Your task to perform on an android device: Is it going to rain tomorrow? Image 0: 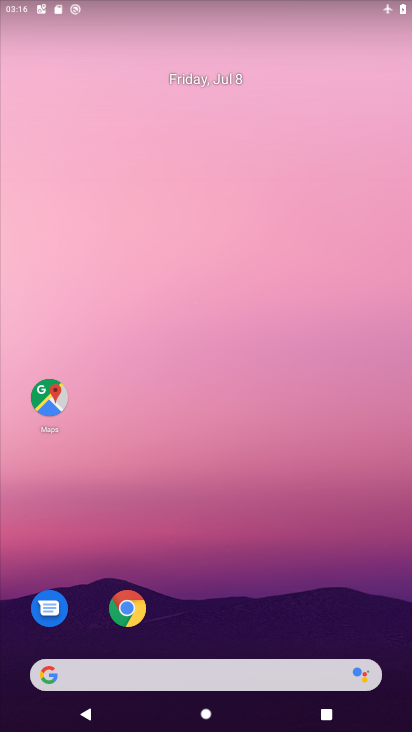
Step 0: click (123, 589)
Your task to perform on an android device: Is it going to rain tomorrow? Image 1: 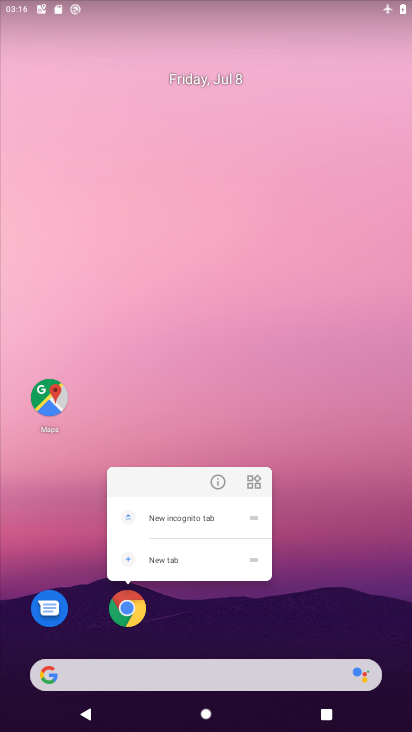
Step 1: click (128, 601)
Your task to perform on an android device: Is it going to rain tomorrow? Image 2: 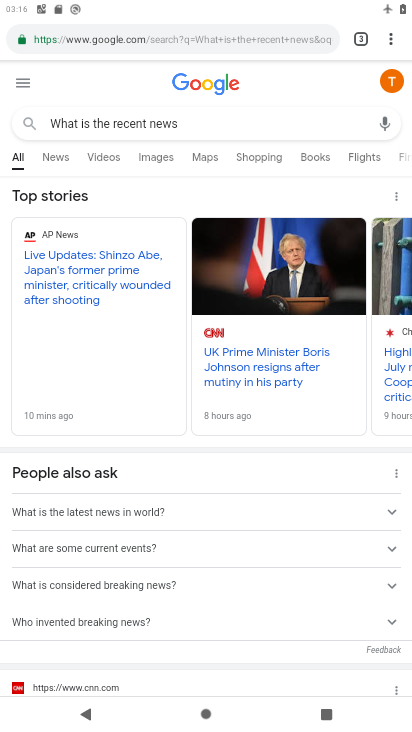
Step 2: click (392, 32)
Your task to perform on an android device: Is it going to rain tomorrow? Image 3: 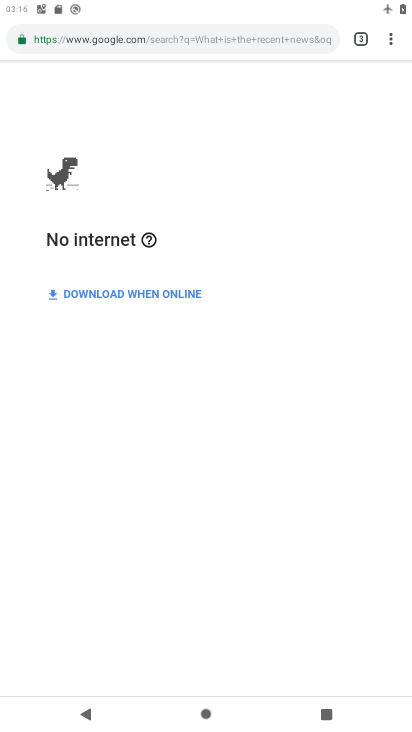
Step 3: click (397, 34)
Your task to perform on an android device: Is it going to rain tomorrow? Image 4: 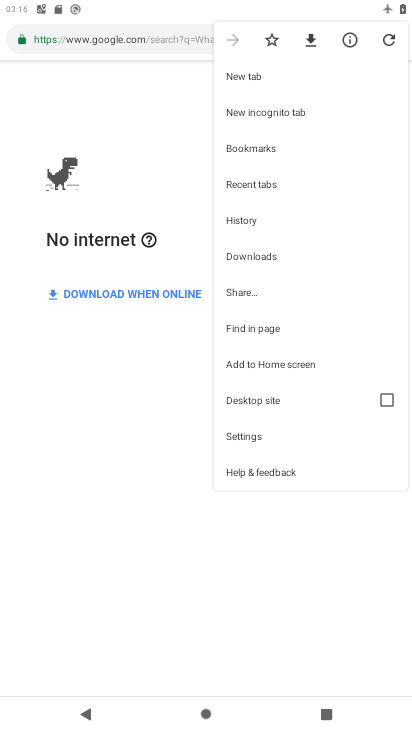
Step 4: click (226, 83)
Your task to perform on an android device: Is it going to rain tomorrow? Image 5: 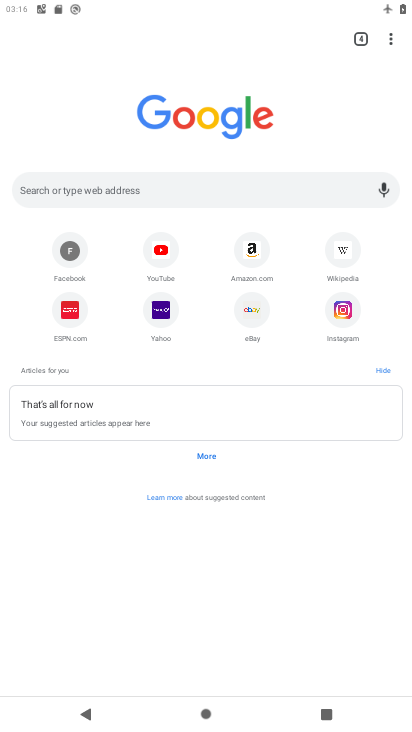
Step 5: click (197, 187)
Your task to perform on an android device: Is it going to rain tomorrow? Image 6: 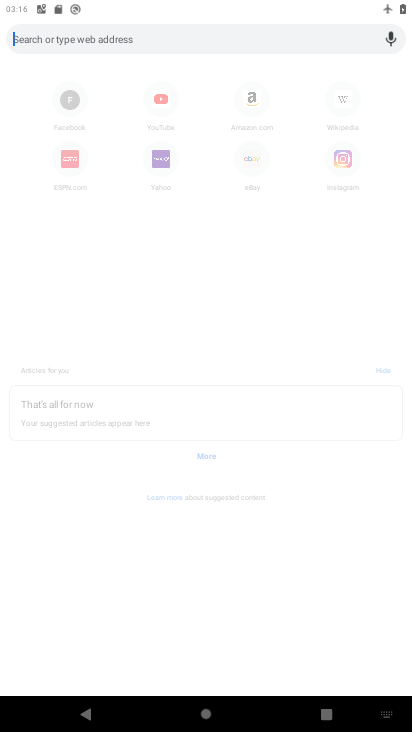
Step 6: type "Is it going to rain tomorrow "
Your task to perform on an android device: Is it going to rain tomorrow? Image 7: 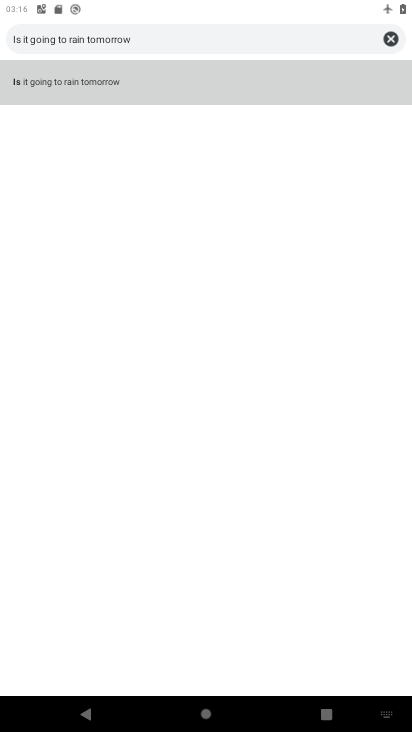
Step 7: click (172, 92)
Your task to perform on an android device: Is it going to rain tomorrow? Image 8: 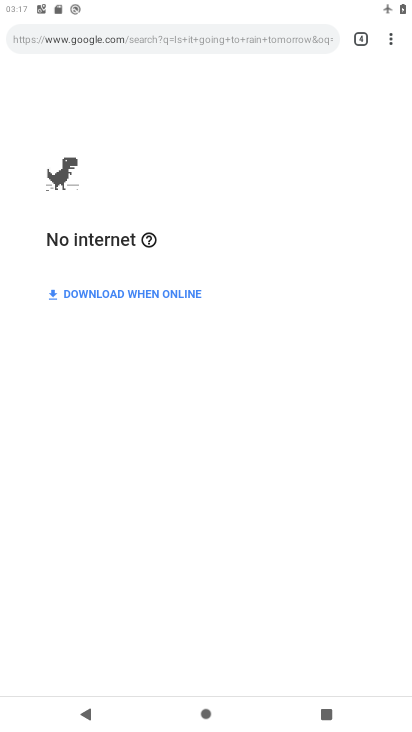
Step 8: click (396, 34)
Your task to perform on an android device: Is it going to rain tomorrow? Image 9: 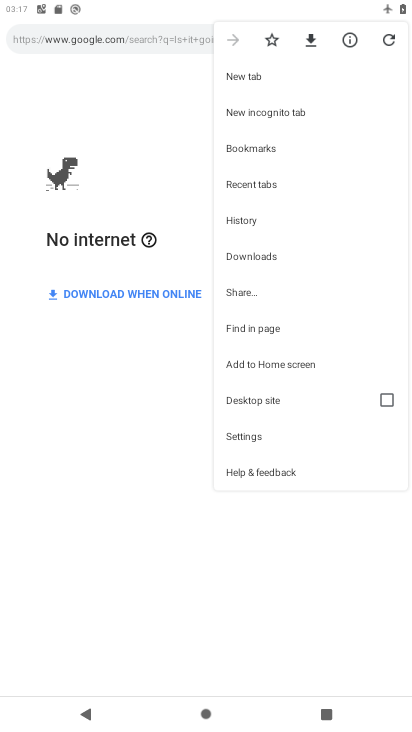
Step 9: click (240, 83)
Your task to perform on an android device: Is it going to rain tomorrow? Image 10: 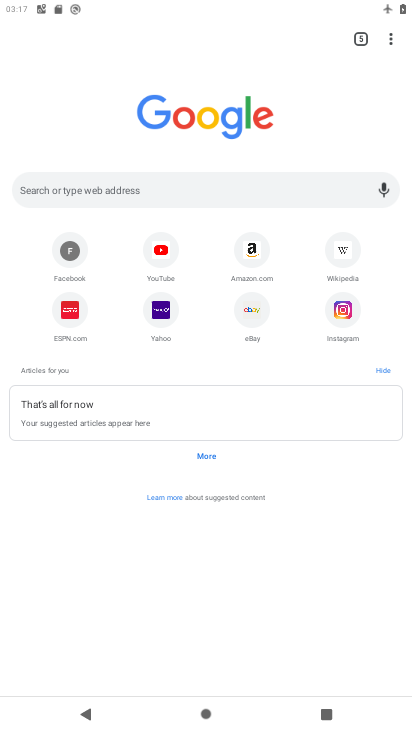
Step 10: click (160, 173)
Your task to perform on an android device: Is it going to rain tomorrow? Image 11: 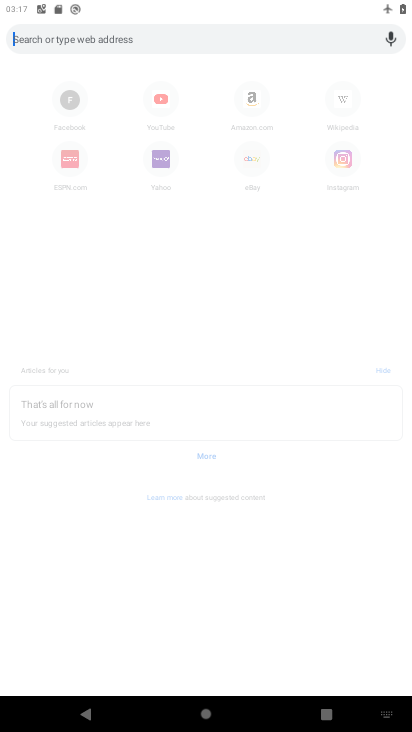
Step 11: type "Is it going to rain tomorrow? "
Your task to perform on an android device: Is it going to rain tomorrow? Image 12: 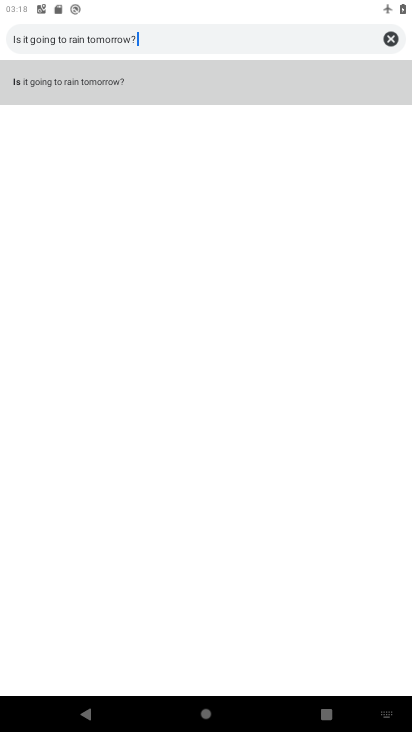
Step 12: click (149, 86)
Your task to perform on an android device: Is it going to rain tomorrow? Image 13: 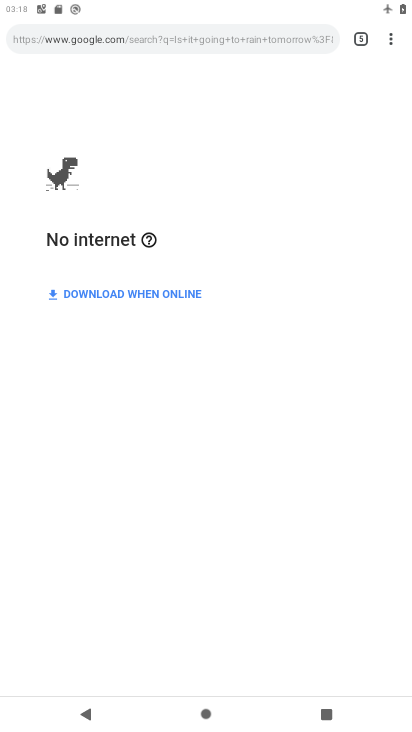
Step 13: task complete